Your task to perform on an android device: Open Google Chrome and open the bookmarks view Image 0: 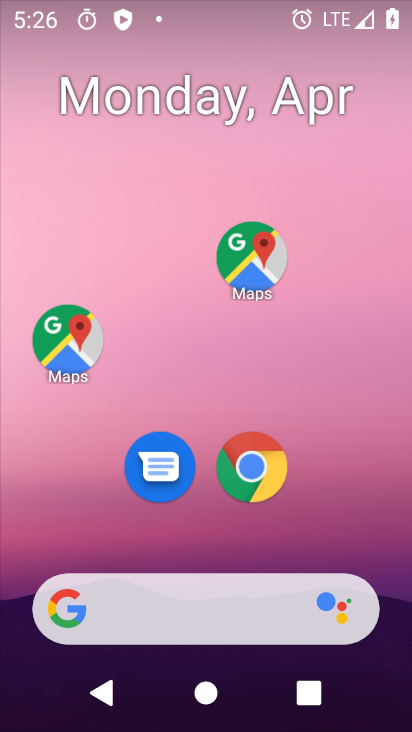
Step 0: drag from (279, 519) to (268, 8)
Your task to perform on an android device: Open Google Chrome and open the bookmarks view Image 1: 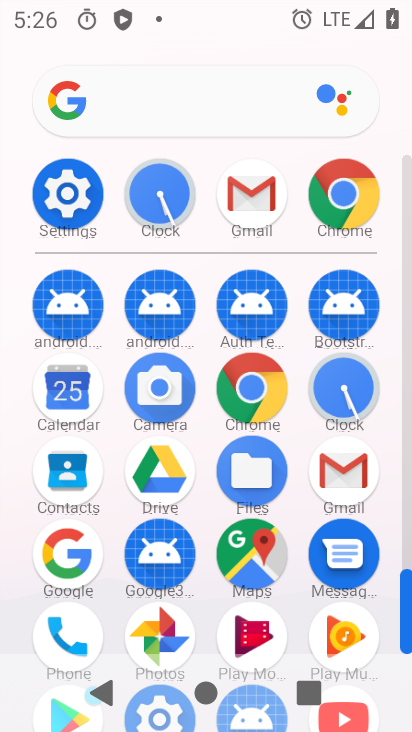
Step 1: click (242, 388)
Your task to perform on an android device: Open Google Chrome and open the bookmarks view Image 2: 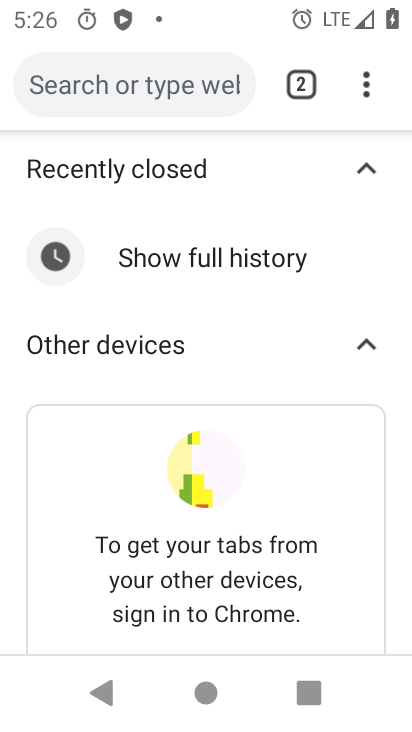
Step 2: task complete